Your task to perform on an android device: Open Youtube and go to the subscriptions tab Image 0: 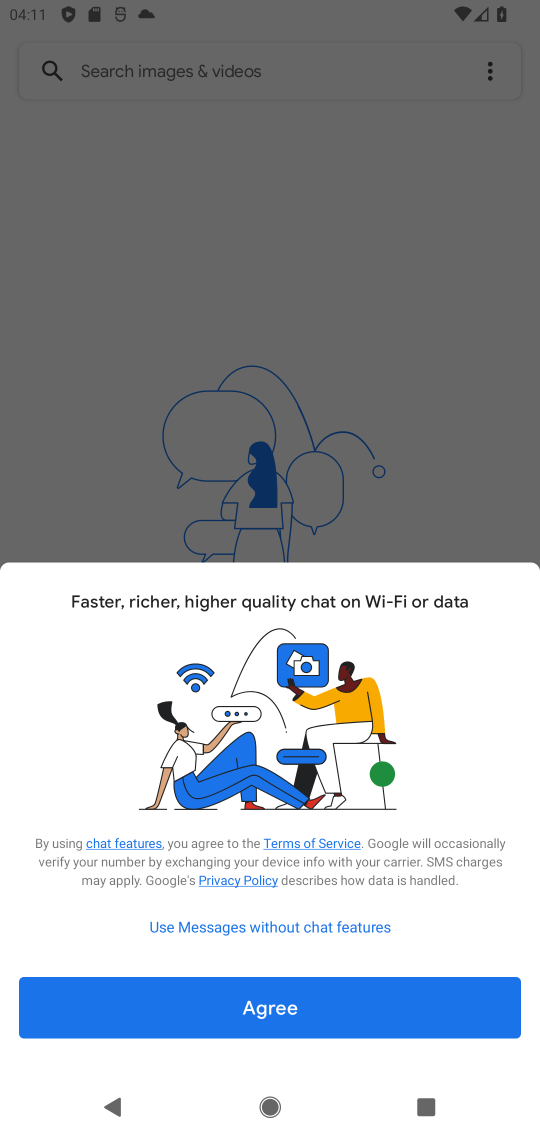
Step 0: press home button
Your task to perform on an android device: Open Youtube and go to the subscriptions tab Image 1: 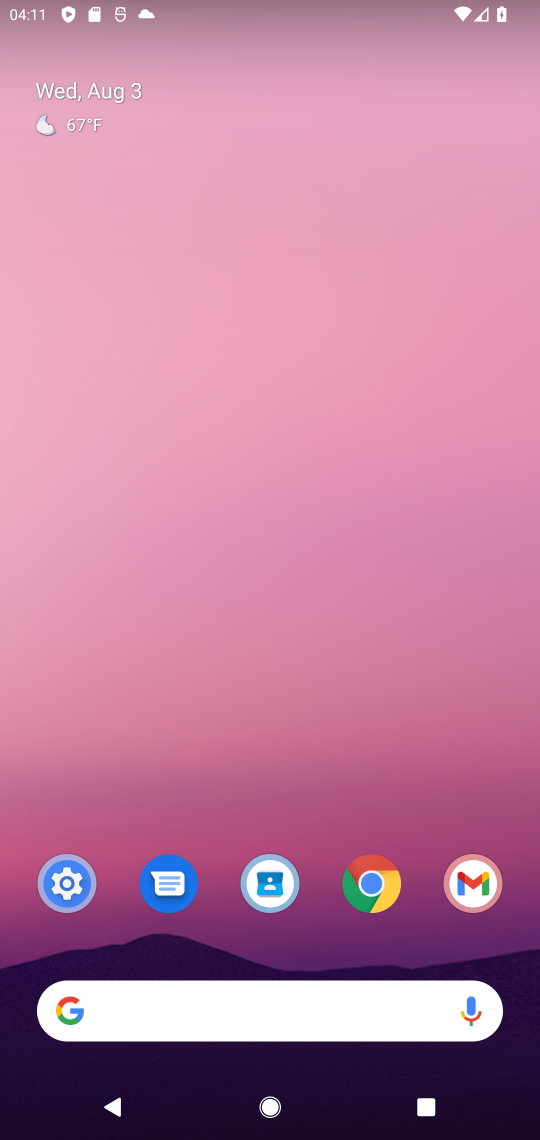
Step 1: drag from (267, 876) to (317, 29)
Your task to perform on an android device: Open Youtube and go to the subscriptions tab Image 2: 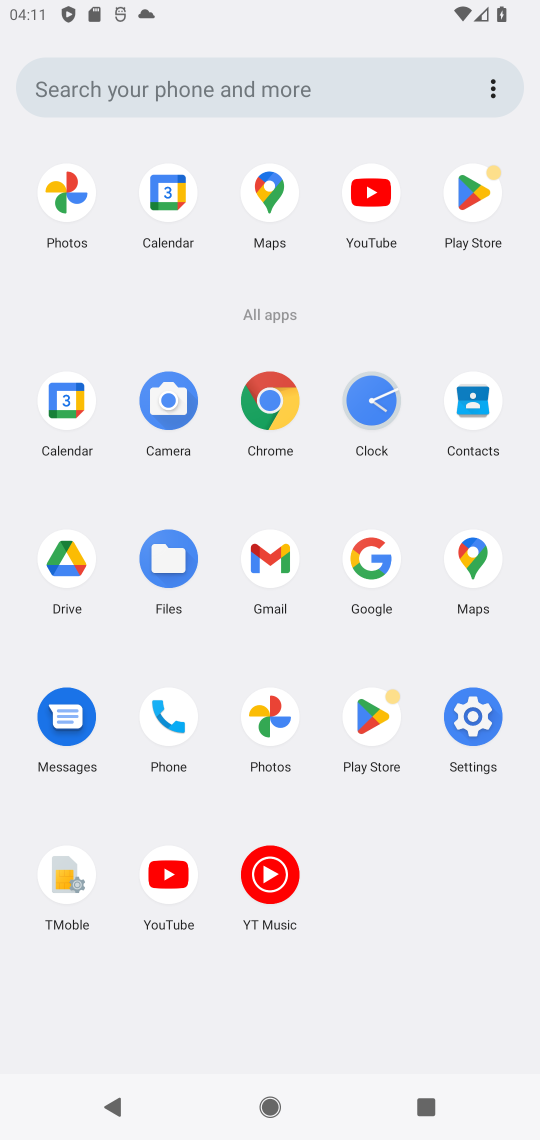
Step 2: click (194, 881)
Your task to perform on an android device: Open Youtube and go to the subscriptions tab Image 3: 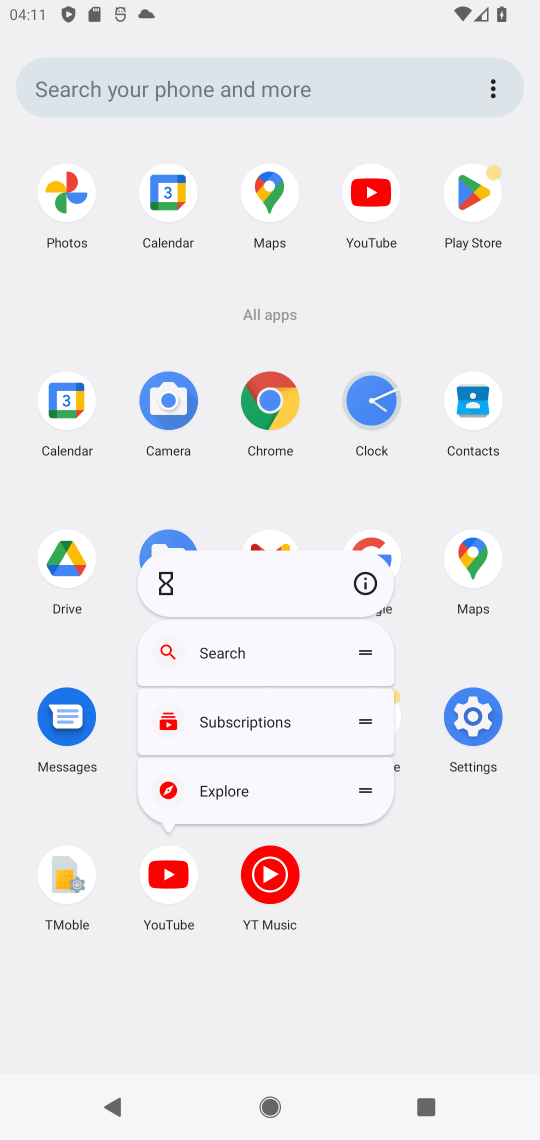
Step 3: click (160, 887)
Your task to perform on an android device: Open Youtube and go to the subscriptions tab Image 4: 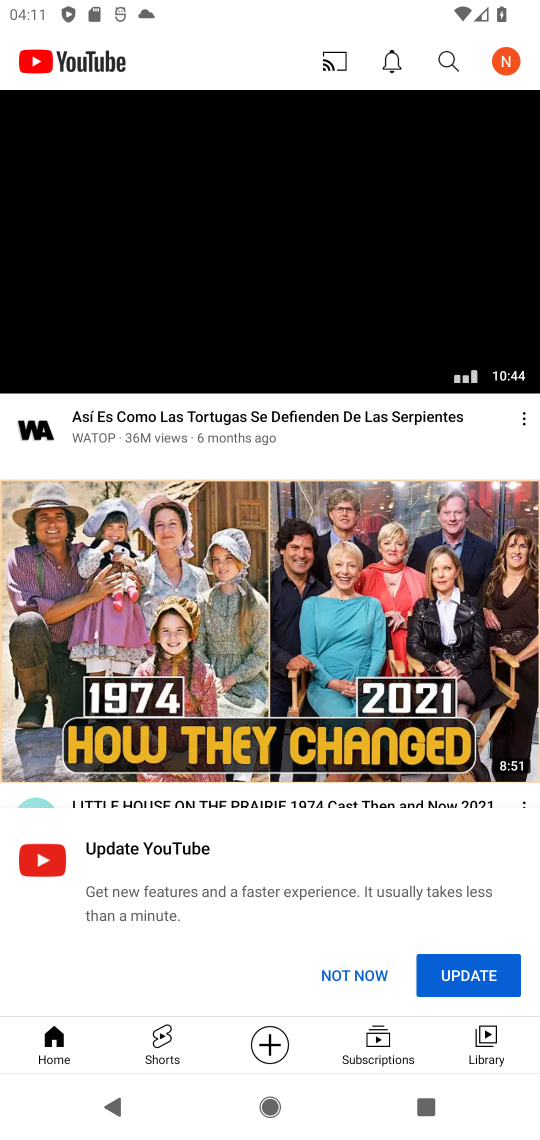
Step 4: click (384, 1062)
Your task to perform on an android device: Open Youtube and go to the subscriptions tab Image 5: 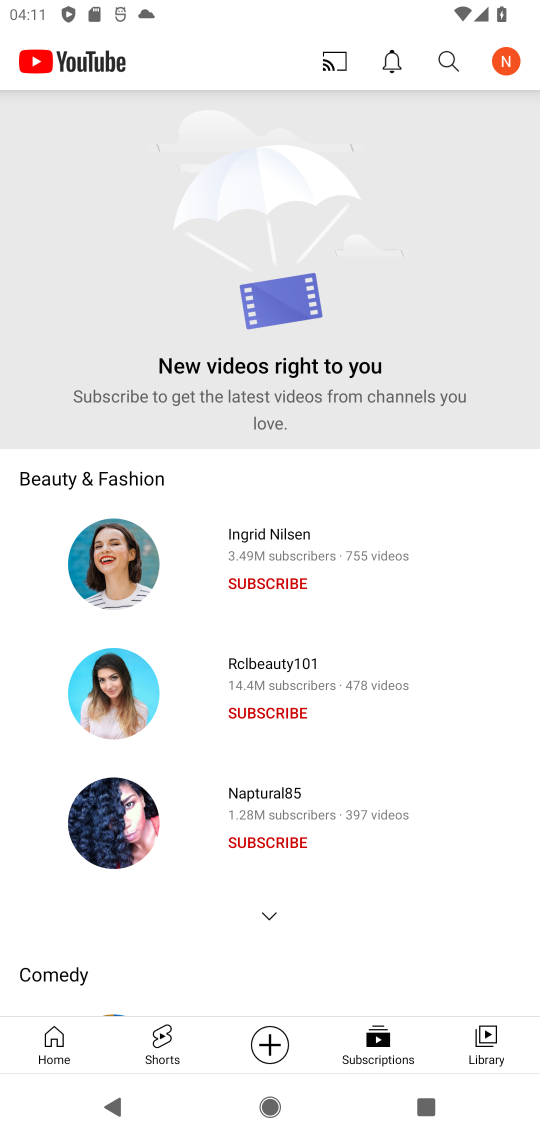
Step 5: task complete